Your task to perform on an android device: change notifications settings Image 0: 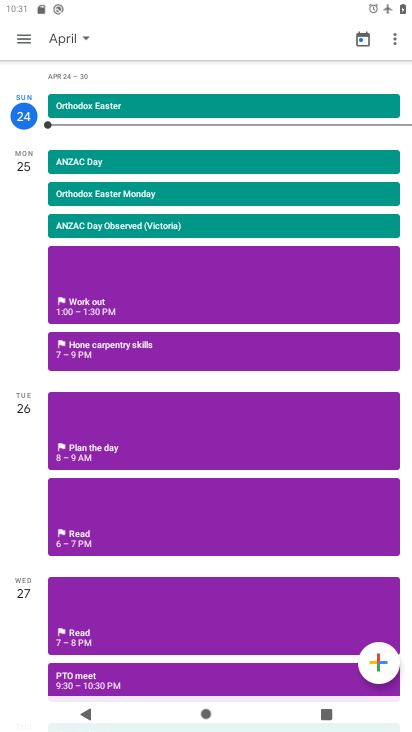
Step 0: press home button
Your task to perform on an android device: change notifications settings Image 1: 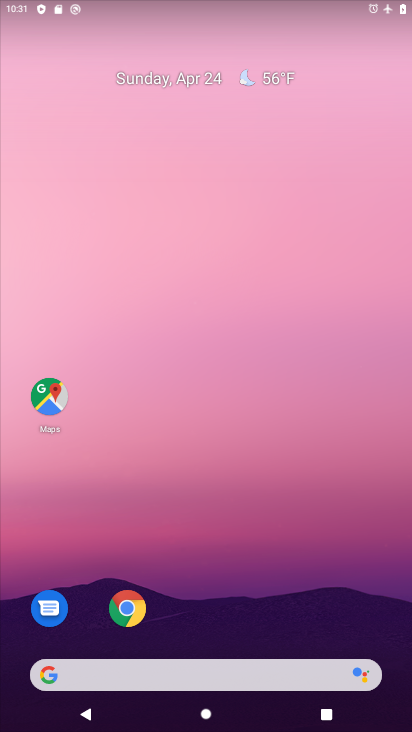
Step 1: drag from (208, 634) to (189, 15)
Your task to perform on an android device: change notifications settings Image 2: 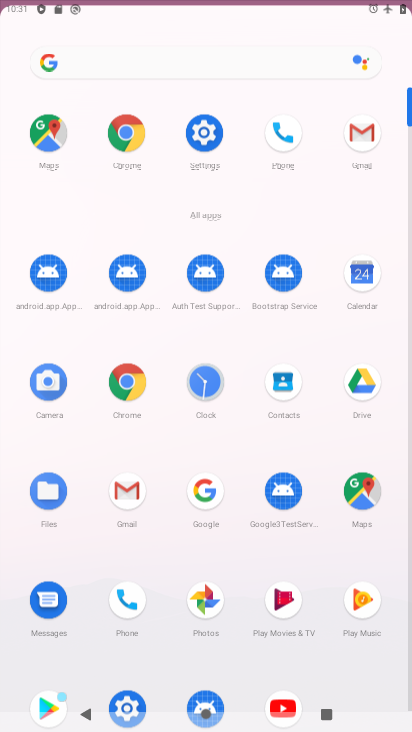
Step 2: click (199, 129)
Your task to perform on an android device: change notifications settings Image 3: 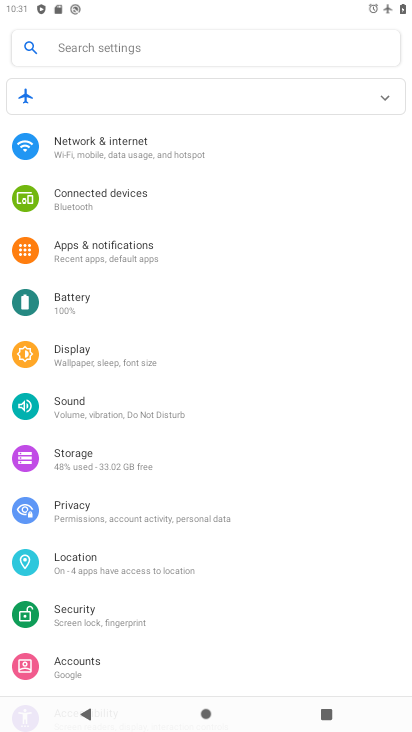
Step 3: click (151, 254)
Your task to perform on an android device: change notifications settings Image 4: 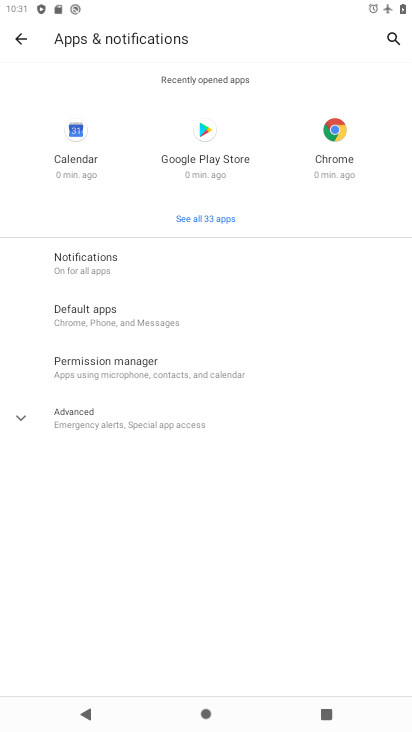
Step 4: click (150, 254)
Your task to perform on an android device: change notifications settings Image 5: 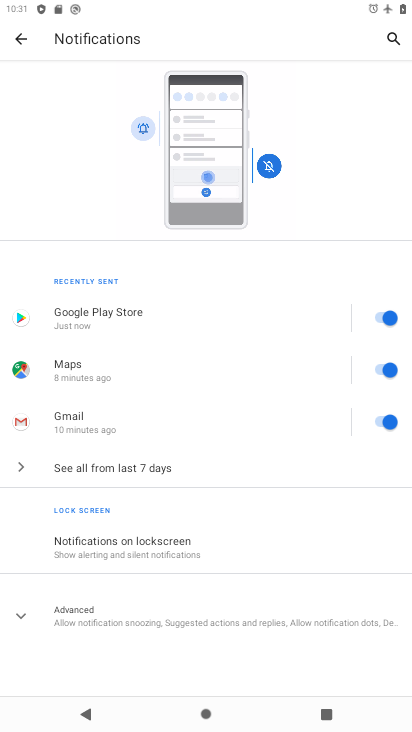
Step 5: click (126, 456)
Your task to perform on an android device: change notifications settings Image 6: 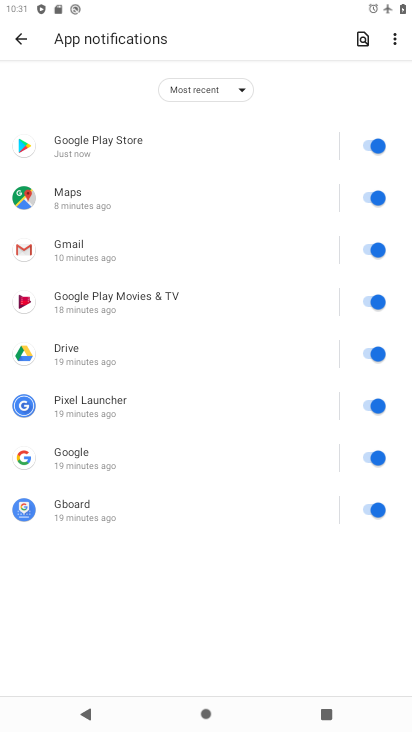
Step 6: click (206, 94)
Your task to perform on an android device: change notifications settings Image 7: 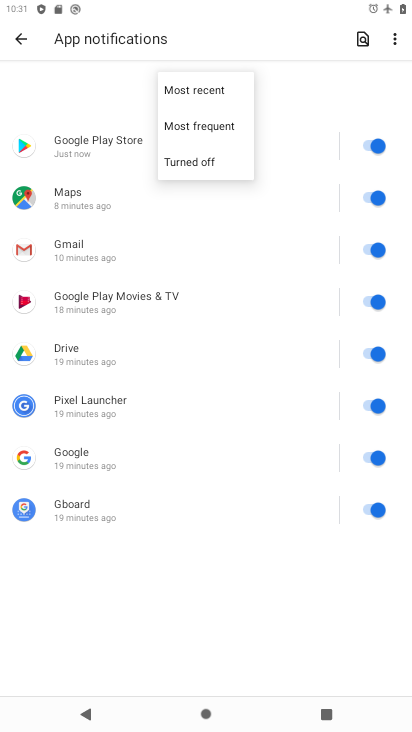
Step 7: click (183, 147)
Your task to perform on an android device: change notifications settings Image 8: 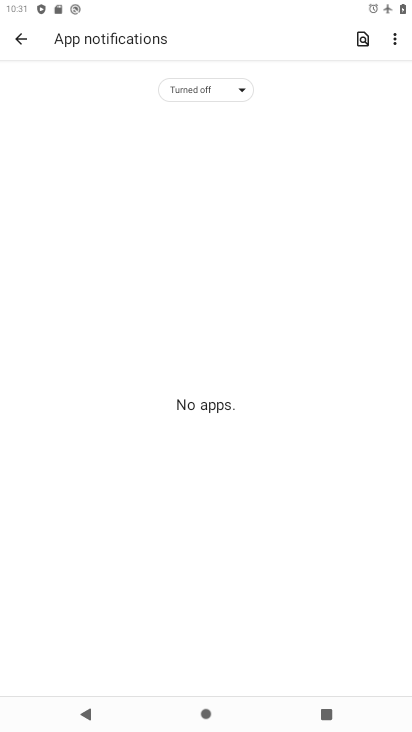
Step 8: task complete